Your task to perform on an android device: Open Yahoo.com Image 0: 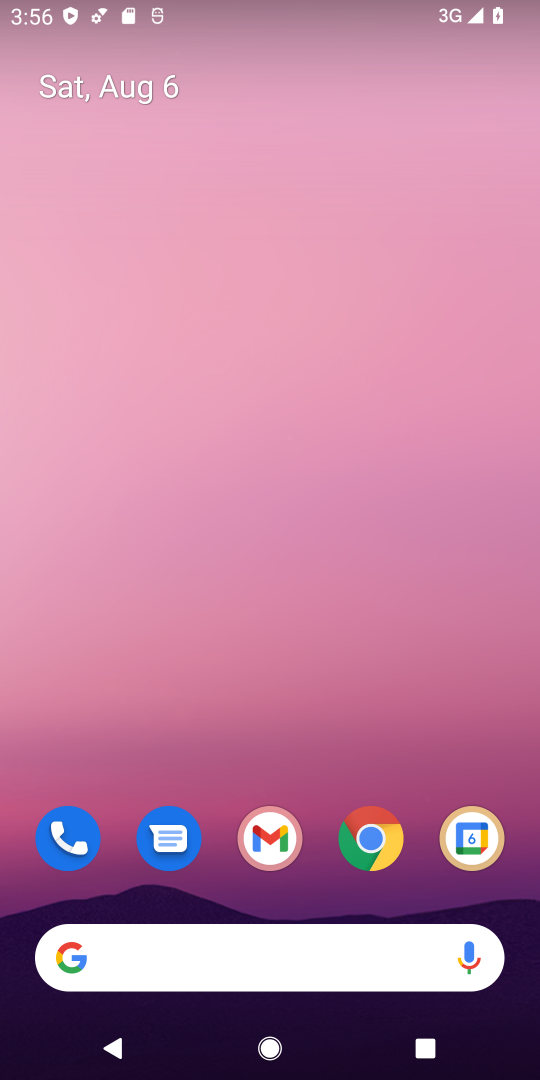
Step 0: drag from (279, 931) to (248, 113)
Your task to perform on an android device: Open Yahoo.com Image 1: 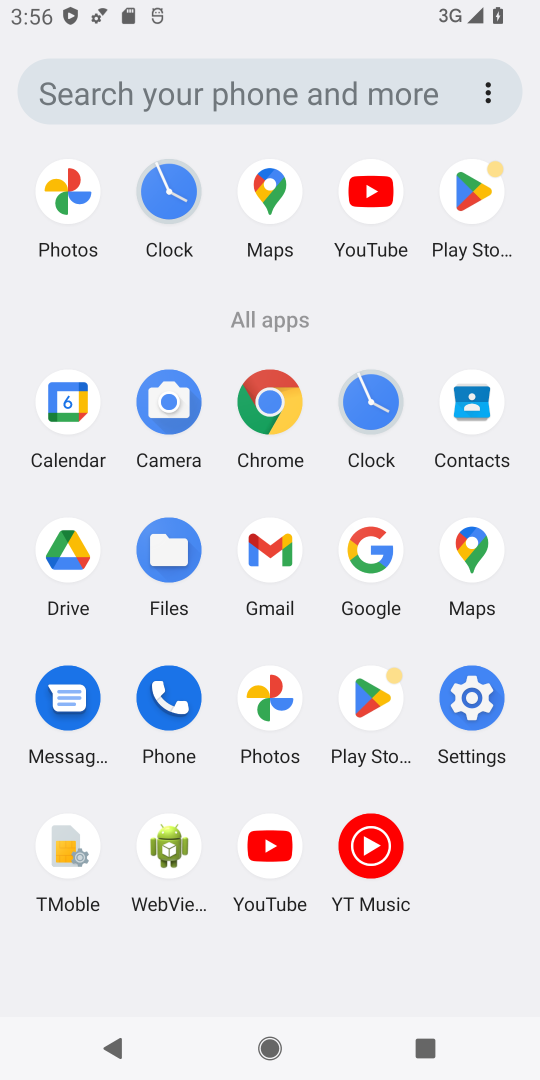
Step 1: click (278, 410)
Your task to perform on an android device: Open Yahoo.com Image 2: 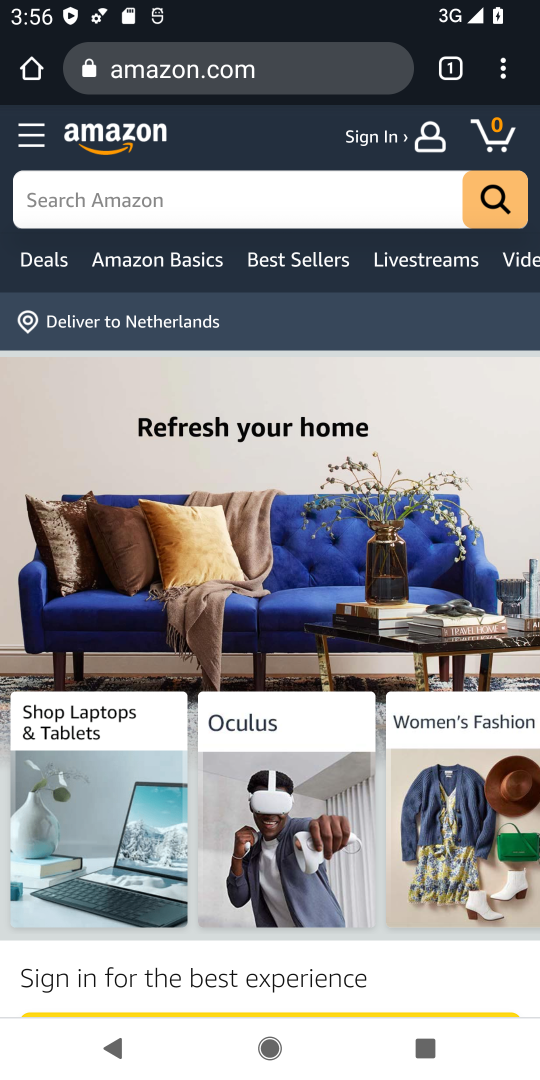
Step 2: click (504, 68)
Your task to perform on an android device: Open Yahoo.com Image 3: 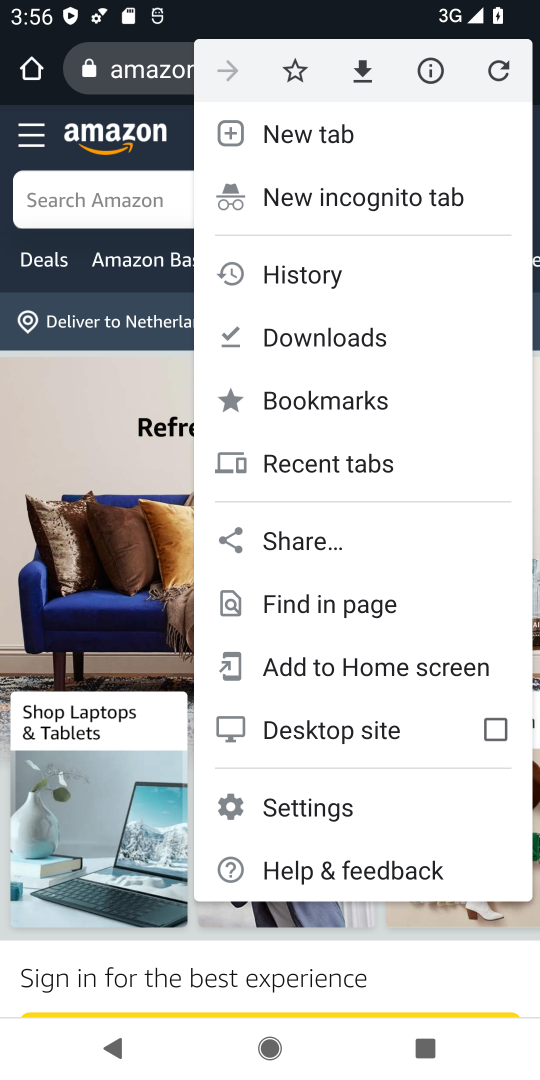
Step 3: click (362, 128)
Your task to perform on an android device: Open Yahoo.com Image 4: 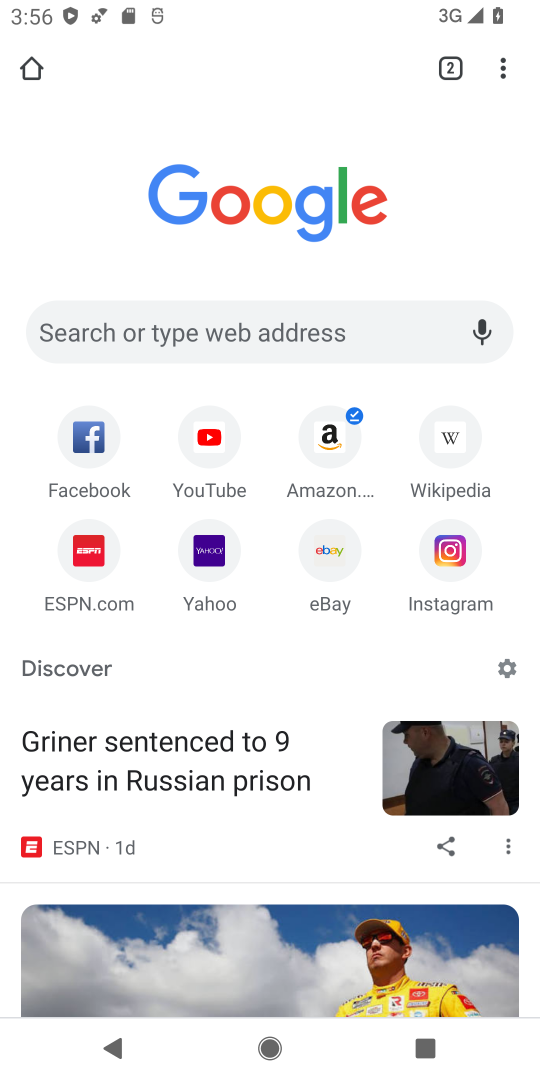
Step 4: click (217, 555)
Your task to perform on an android device: Open Yahoo.com Image 5: 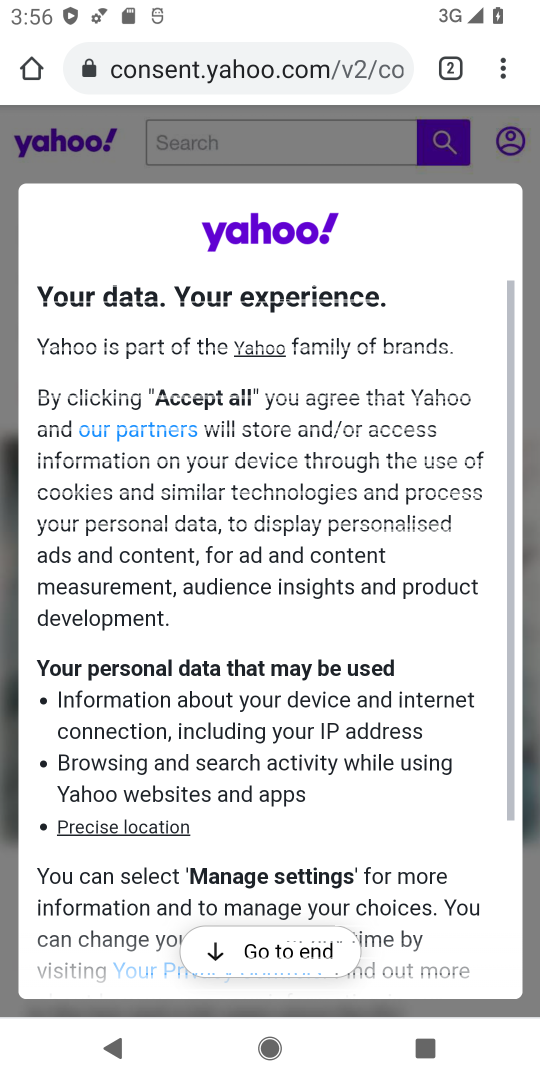
Step 5: task complete